Your task to perform on an android device: Open accessibility settings Image 0: 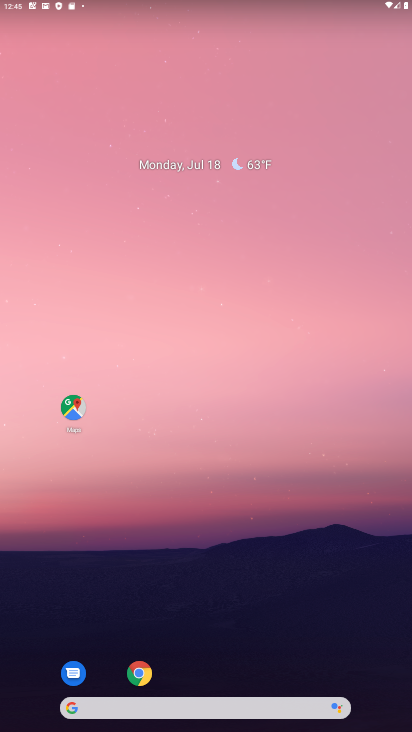
Step 0: drag from (233, 637) to (231, 186)
Your task to perform on an android device: Open accessibility settings Image 1: 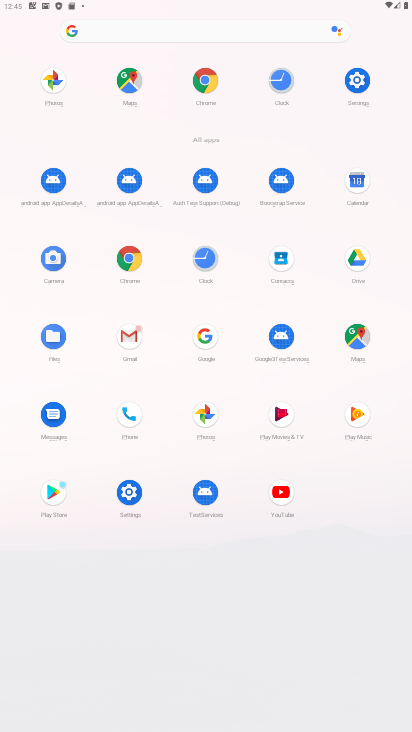
Step 1: click (356, 79)
Your task to perform on an android device: Open accessibility settings Image 2: 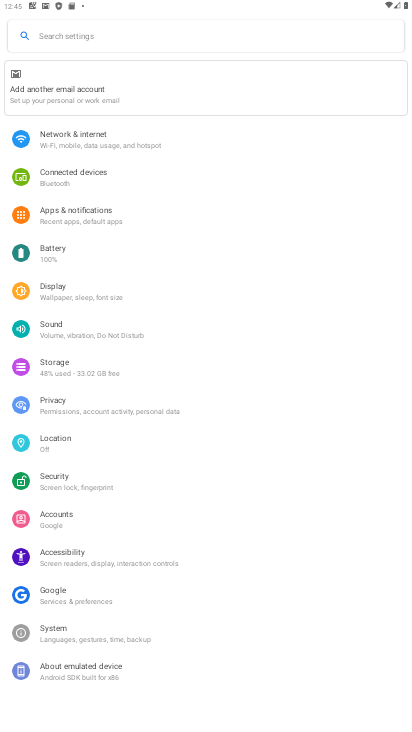
Step 2: click (101, 558)
Your task to perform on an android device: Open accessibility settings Image 3: 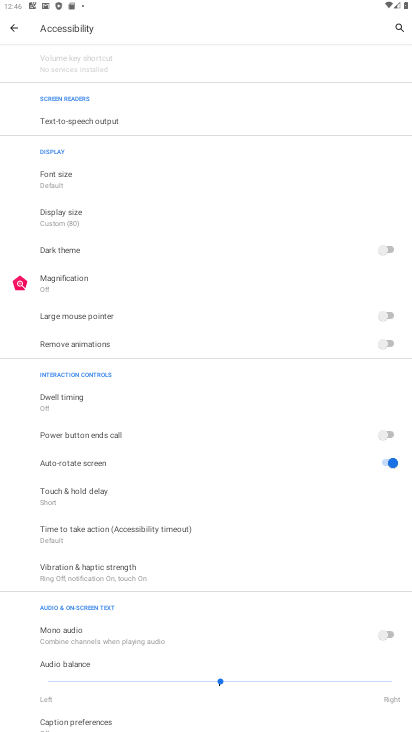
Step 3: task complete